Your task to perform on an android device: turn off wifi Image 0: 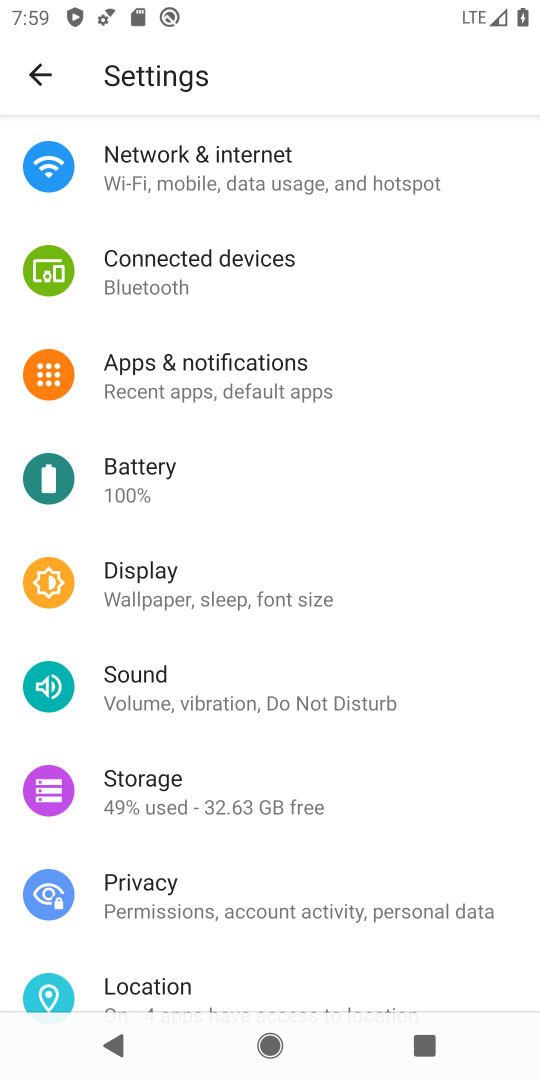
Step 0: click (302, 185)
Your task to perform on an android device: turn off wifi Image 1: 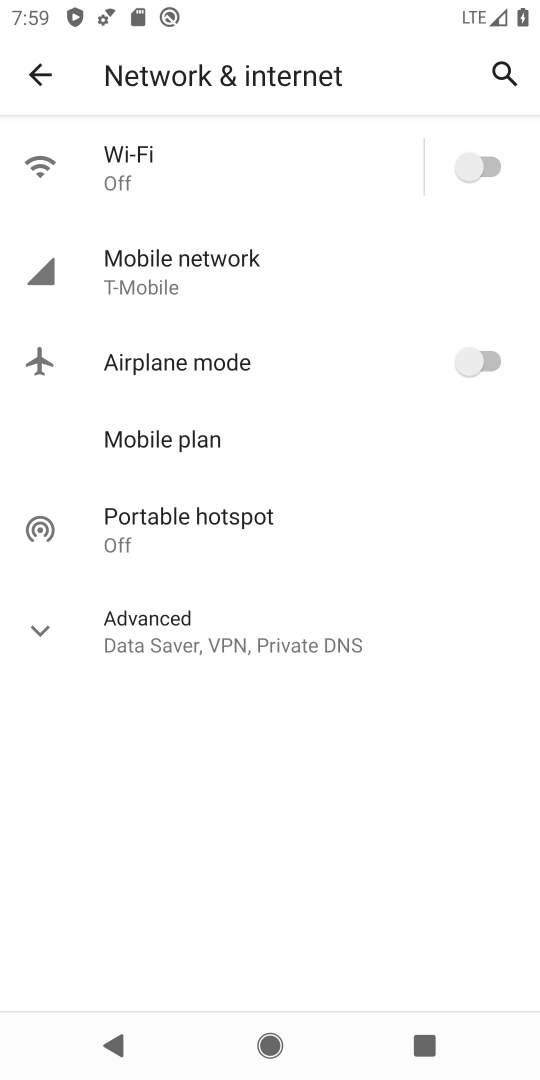
Step 1: task complete